Your task to perform on an android device: Open Wikipedia Image 0: 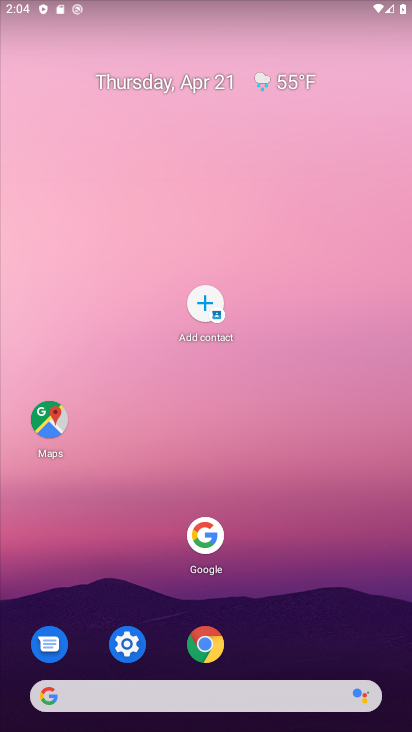
Step 0: drag from (303, 547) to (250, 192)
Your task to perform on an android device: Open Wikipedia Image 1: 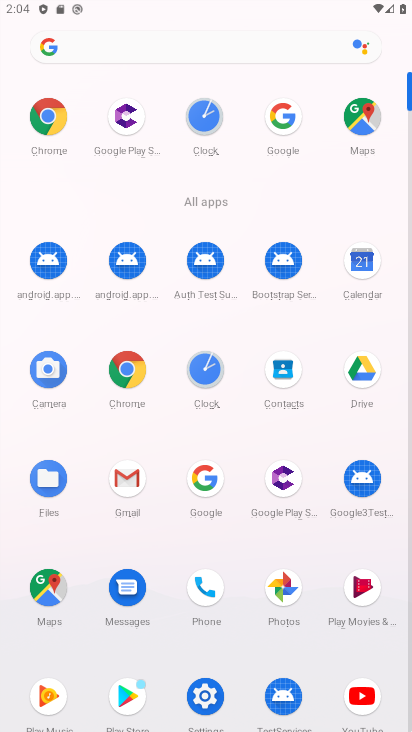
Step 1: drag from (321, 316) to (321, 188)
Your task to perform on an android device: Open Wikipedia Image 2: 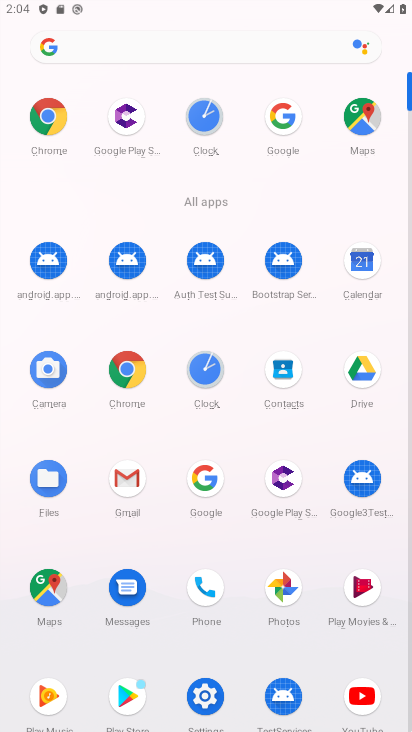
Step 2: drag from (297, 388) to (315, 132)
Your task to perform on an android device: Open Wikipedia Image 3: 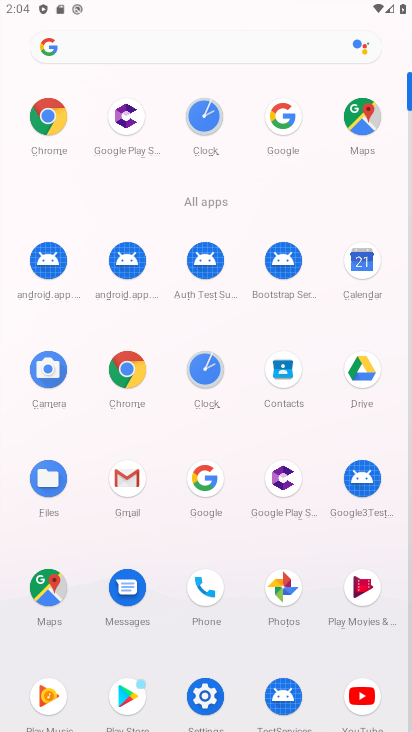
Step 3: drag from (363, 308) to (366, 102)
Your task to perform on an android device: Open Wikipedia Image 4: 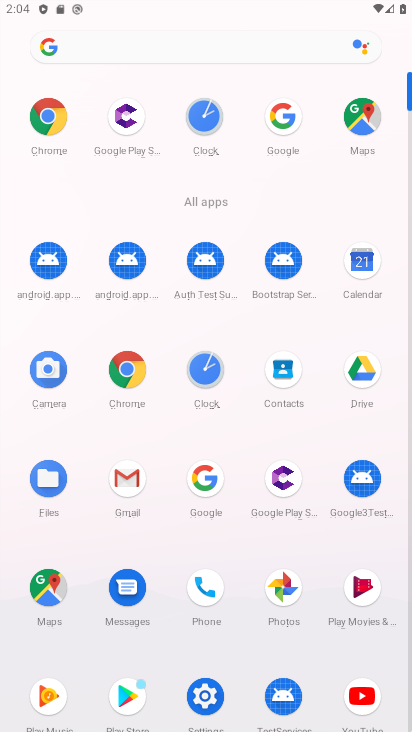
Step 4: drag from (267, 256) to (258, 99)
Your task to perform on an android device: Open Wikipedia Image 5: 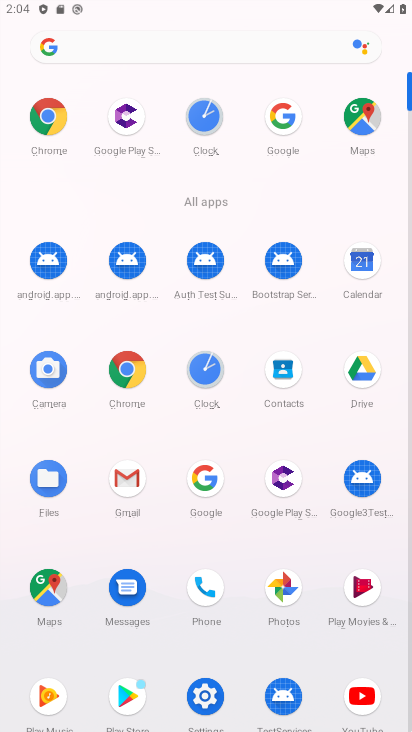
Step 5: click (54, 123)
Your task to perform on an android device: Open Wikipedia Image 6: 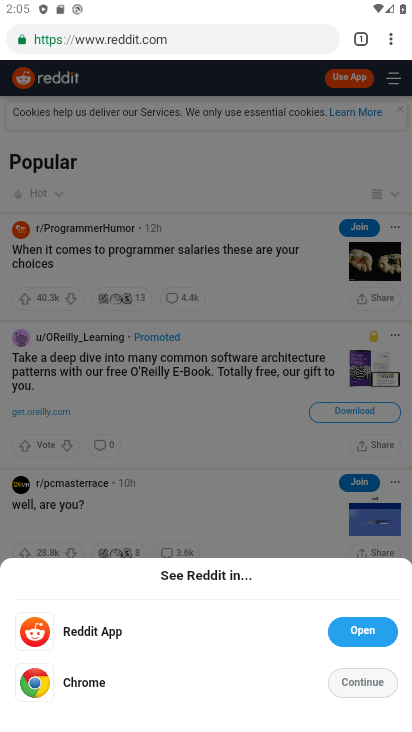
Step 6: drag from (394, 35) to (241, 117)
Your task to perform on an android device: Open Wikipedia Image 7: 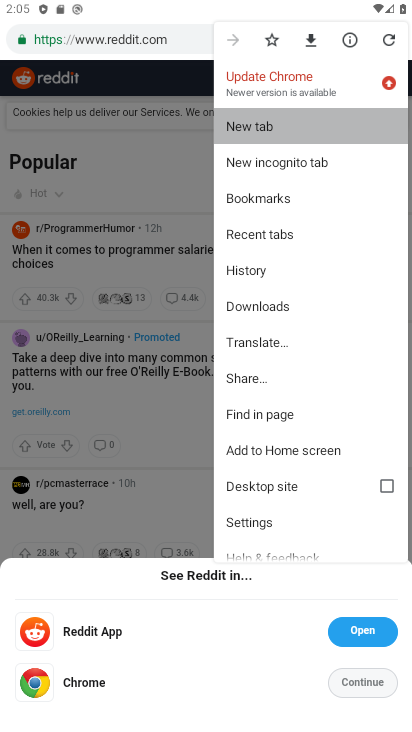
Step 7: click (237, 119)
Your task to perform on an android device: Open Wikipedia Image 8: 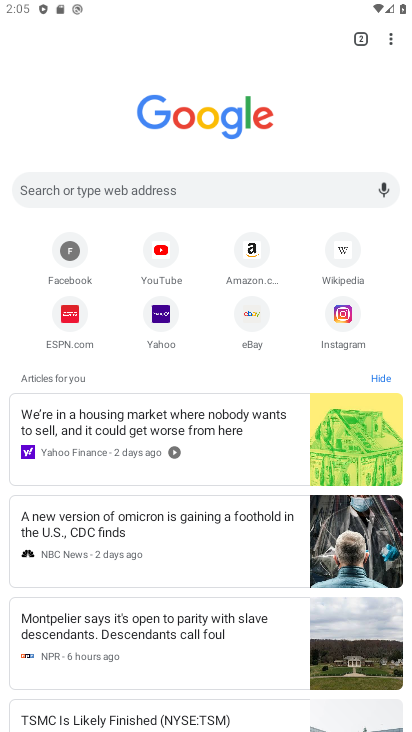
Step 8: click (342, 246)
Your task to perform on an android device: Open Wikipedia Image 9: 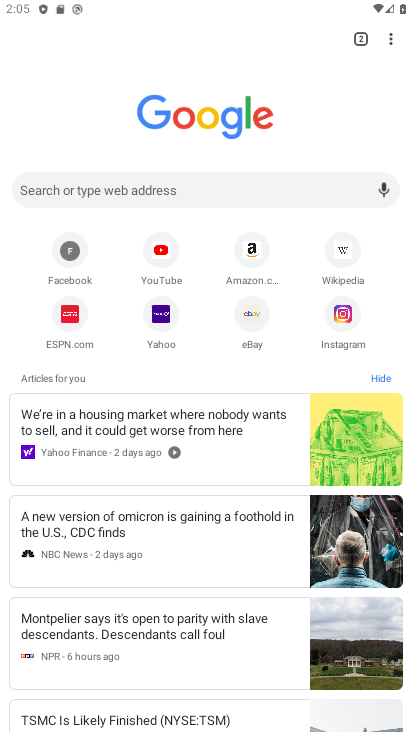
Step 9: click (342, 246)
Your task to perform on an android device: Open Wikipedia Image 10: 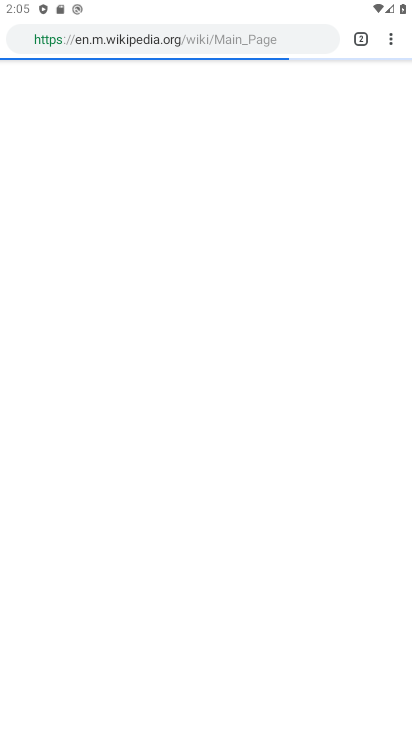
Step 10: click (341, 252)
Your task to perform on an android device: Open Wikipedia Image 11: 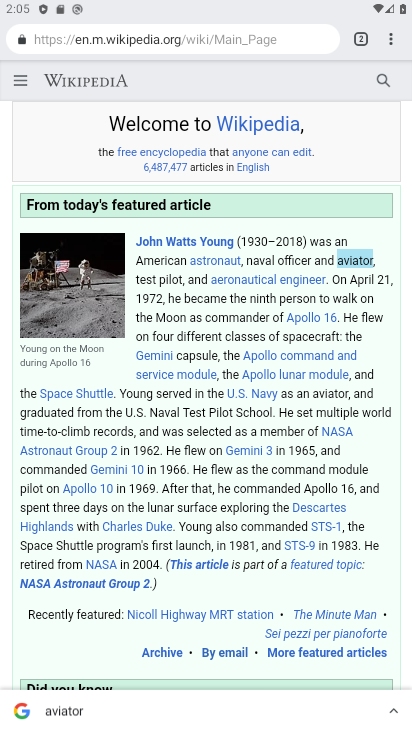
Step 11: task complete